Your task to perform on an android device: Open Chrome and go to the settings page Image 0: 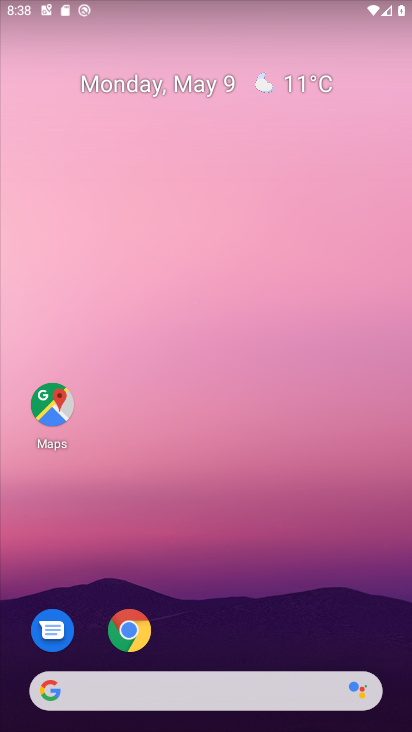
Step 0: click (140, 640)
Your task to perform on an android device: Open Chrome and go to the settings page Image 1: 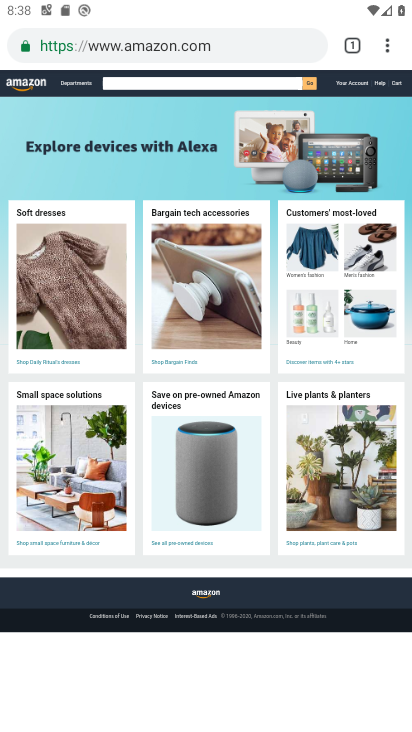
Step 1: task complete